Your task to perform on an android device: Empty the shopping cart on bestbuy. Add "usb-c to usb-a" to the cart on bestbuy Image 0: 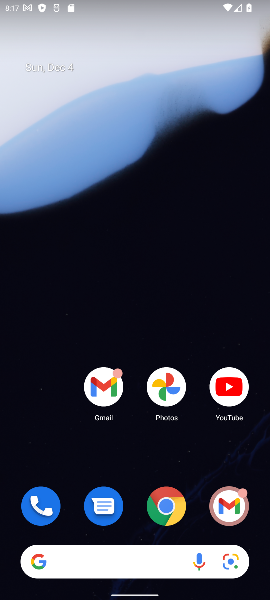
Step 0: click (147, 499)
Your task to perform on an android device: Empty the shopping cart on bestbuy. Add "usb-c to usb-a" to the cart on bestbuy Image 1: 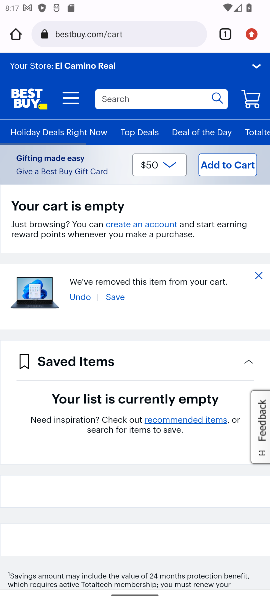
Step 1: click (154, 106)
Your task to perform on an android device: Empty the shopping cart on bestbuy. Add "usb-c to usb-a" to the cart on bestbuy Image 2: 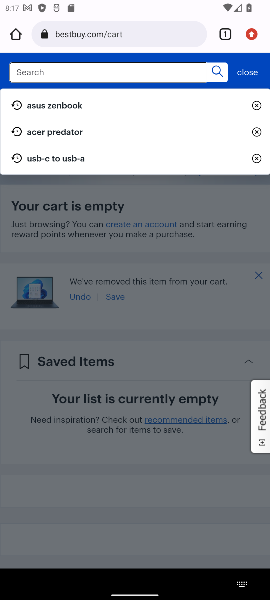
Step 2: type "usb-c to usb-a"
Your task to perform on an android device: Empty the shopping cart on bestbuy. Add "usb-c to usb-a" to the cart on bestbuy Image 3: 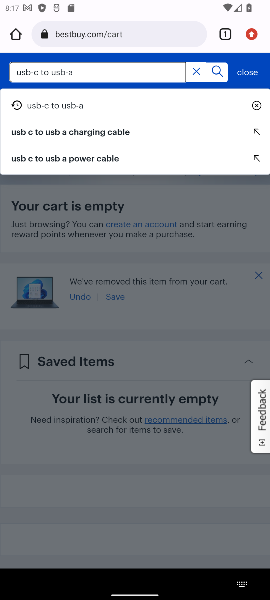
Step 3: click (215, 72)
Your task to perform on an android device: Empty the shopping cart on bestbuy. Add "usb-c to usb-a" to the cart on bestbuy Image 4: 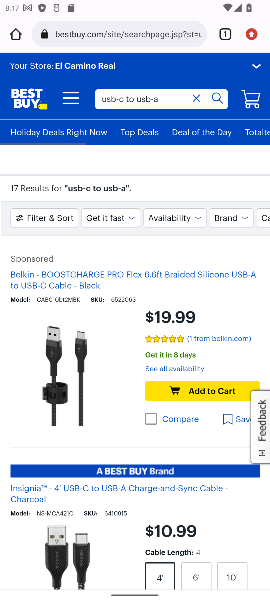
Step 4: click (180, 393)
Your task to perform on an android device: Empty the shopping cart on bestbuy. Add "usb-c to usb-a" to the cart on bestbuy Image 5: 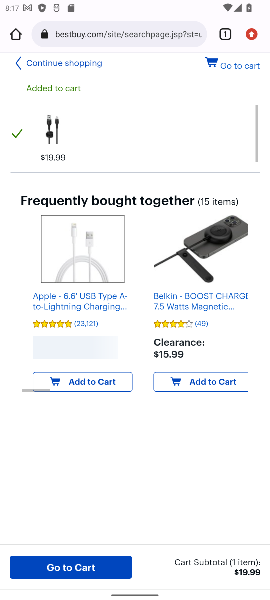
Step 5: task complete